Your task to perform on an android device: Open the Play Movies app and select the watchlist tab. Image 0: 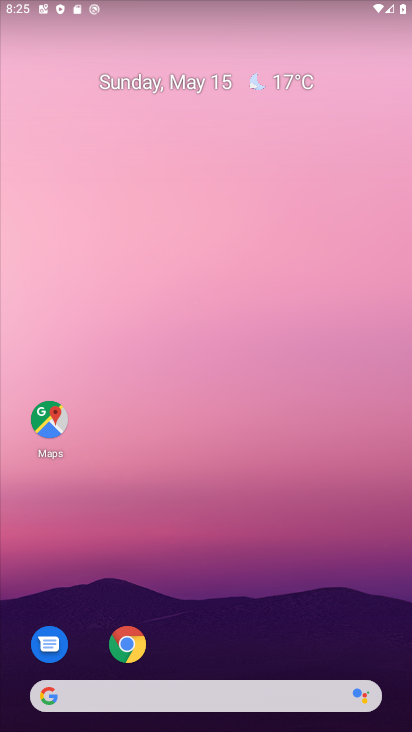
Step 0: drag from (248, 719) to (250, 176)
Your task to perform on an android device: Open the Play Movies app and select the watchlist tab. Image 1: 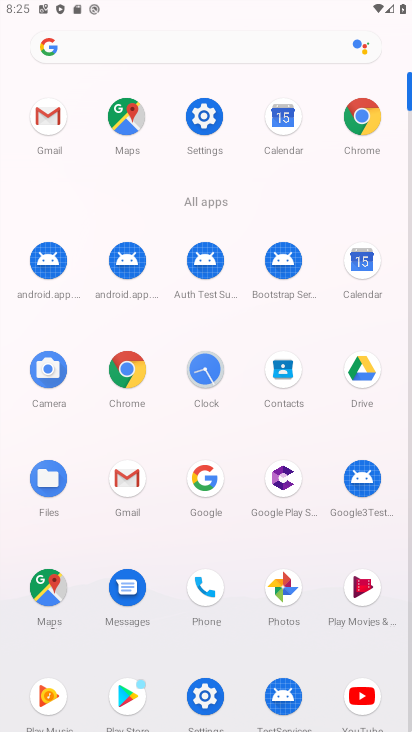
Step 1: click (347, 588)
Your task to perform on an android device: Open the Play Movies app and select the watchlist tab. Image 2: 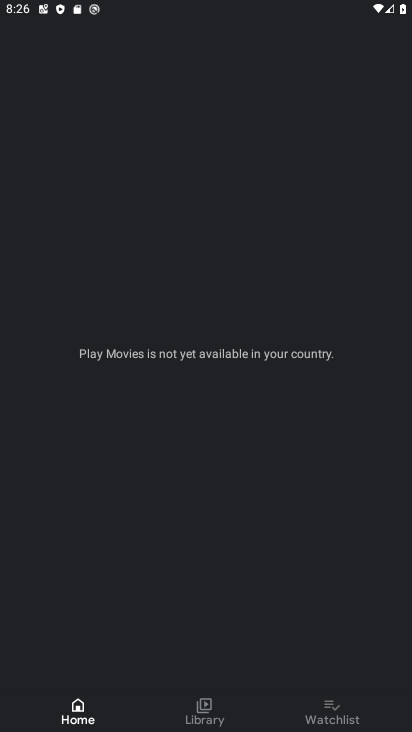
Step 2: click (322, 727)
Your task to perform on an android device: Open the Play Movies app and select the watchlist tab. Image 3: 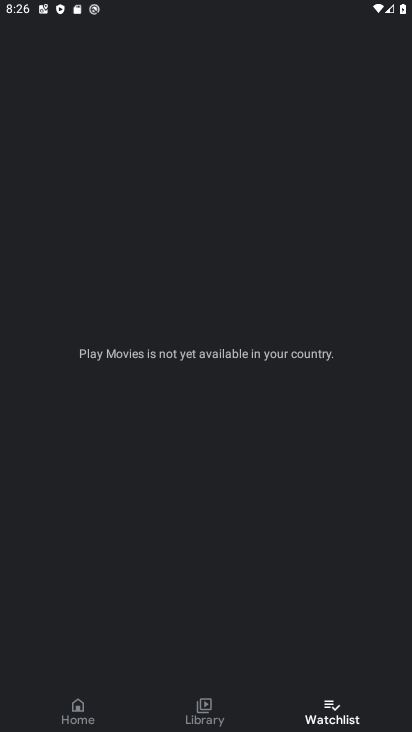
Step 3: task complete